Your task to perform on an android device: open chrome and create a bookmark for the current page Image 0: 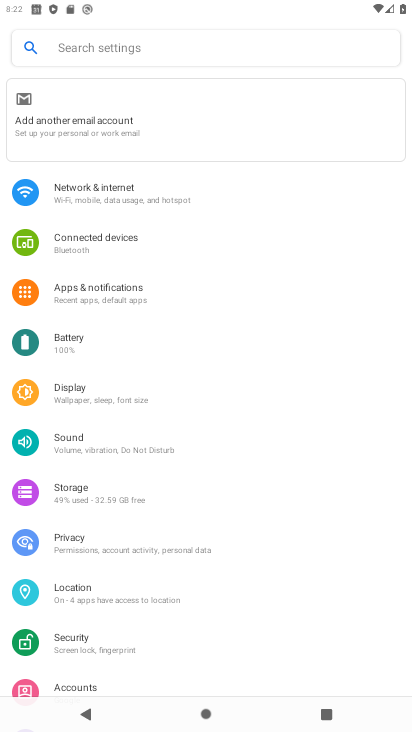
Step 0: press home button
Your task to perform on an android device: open chrome and create a bookmark for the current page Image 1: 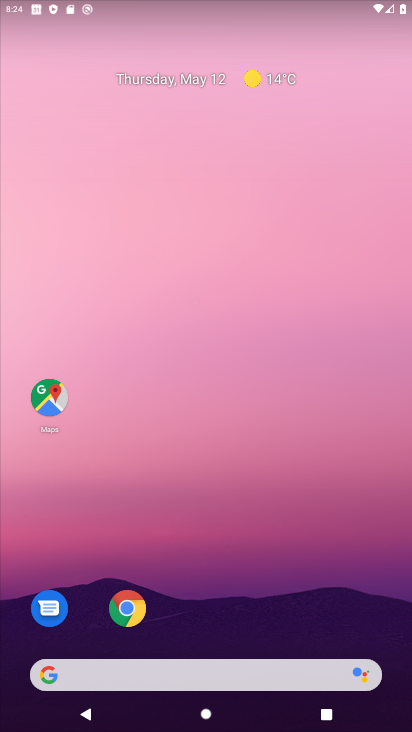
Step 1: click (126, 589)
Your task to perform on an android device: open chrome and create a bookmark for the current page Image 2: 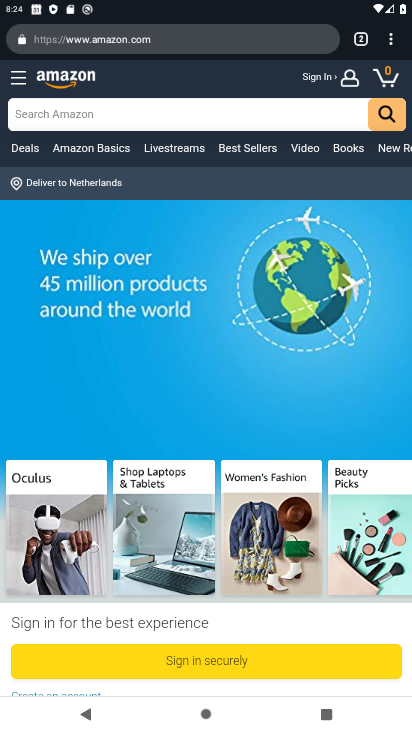
Step 2: click (393, 41)
Your task to perform on an android device: open chrome and create a bookmark for the current page Image 3: 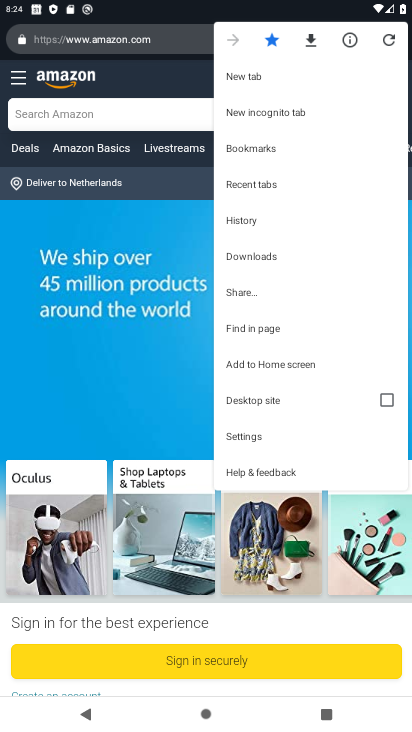
Step 3: click (276, 41)
Your task to perform on an android device: open chrome and create a bookmark for the current page Image 4: 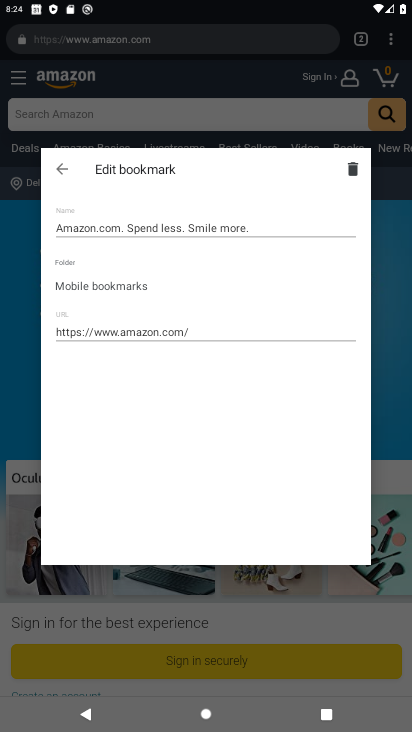
Step 4: task complete